Your task to perform on an android device: turn off javascript in the chrome app Image 0: 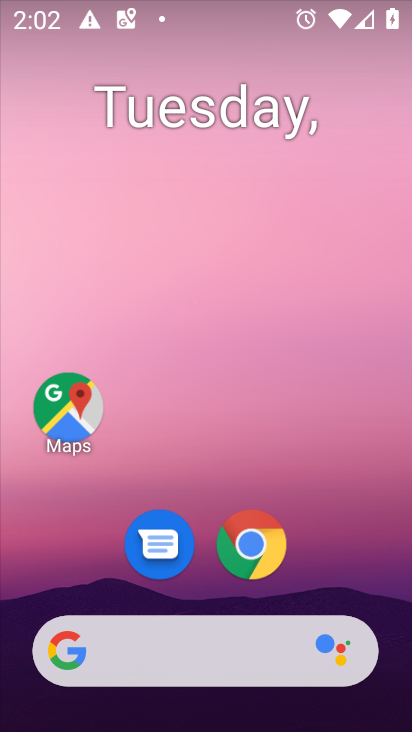
Step 0: drag from (324, 532) to (302, 9)
Your task to perform on an android device: turn off javascript in the chrome app Image 1: 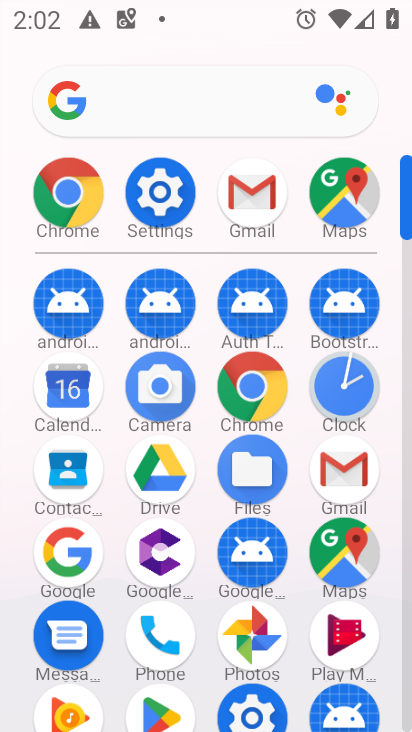
Step 1: click (246, 395)
Your task to perform on an android device: turn off javascript in the chrome app Image 2: 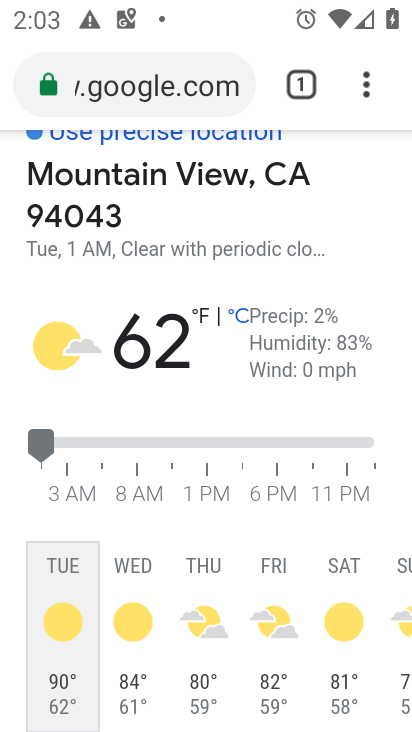
Step 2: drag from (355, 84) to (153, 593)
Your task to perform on an android device: turn off javascript in the chrome app Image 3: 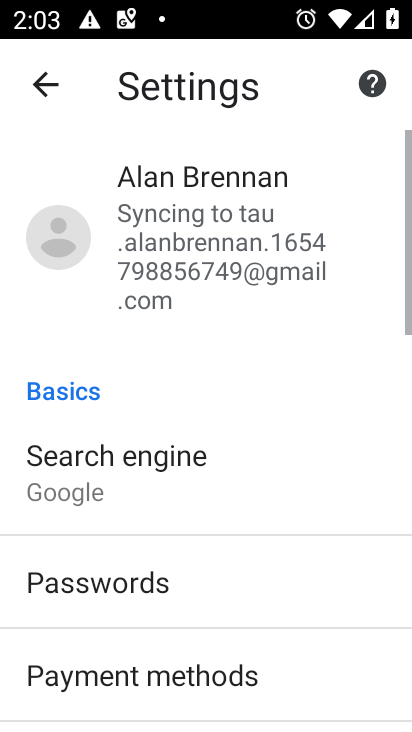
Step 3: drag from (253, 594) to (285, 63)
Your task to perform on an android device: turn off javascript in the chrome app Image 4: 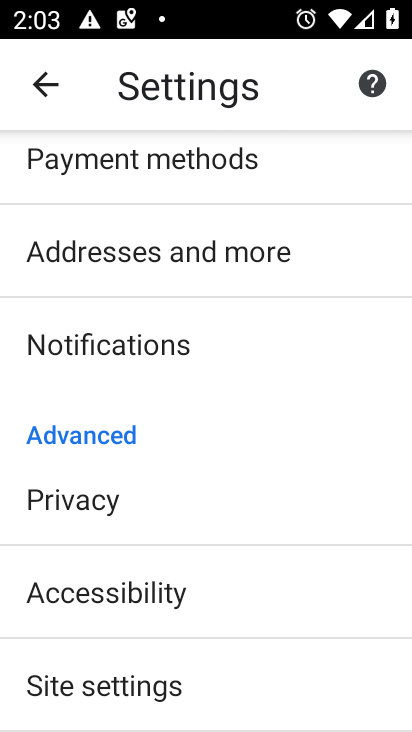
Step 4: drag from (254, 595) to (270, 202)
Your task to perform on an android device: turn off javascript in the chrome app Image 5: 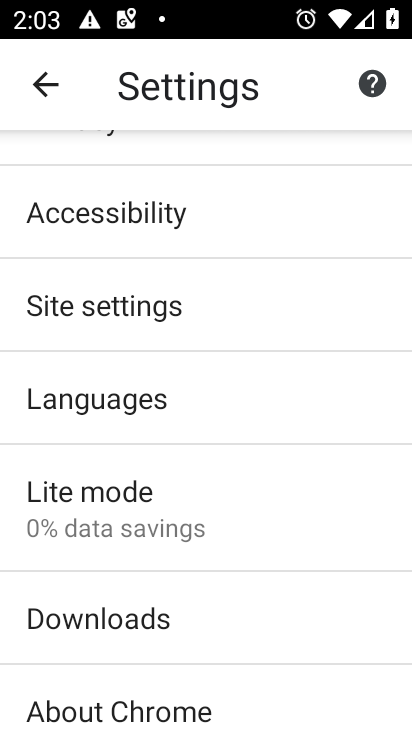
Step 5: click (124, 327)
Your task to perform on an android device: turn off javascript in the chrome app Image 6: 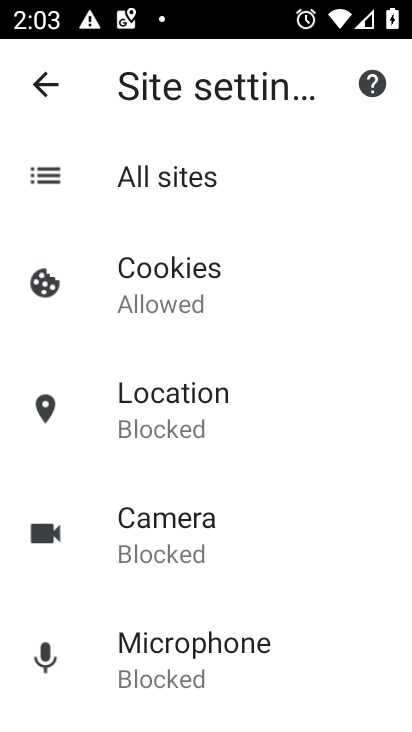
Step 6: drag from (276, 623) to (287, 186)
Your task to perform on an android device: turn off javascript in the chrome app Image 7: 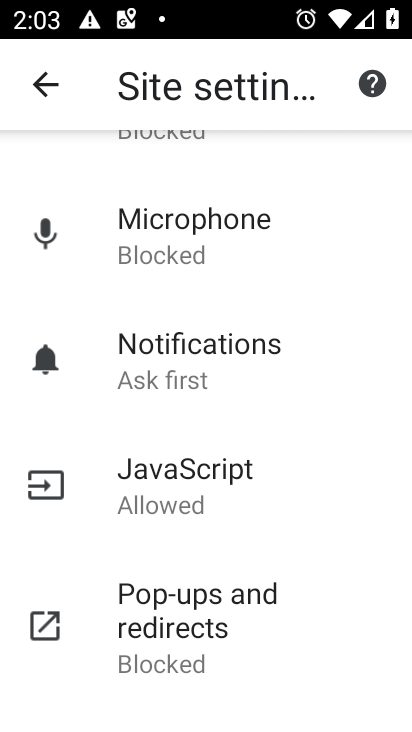
Step 7: click (178, 503)
Your task to perform on an android device: turn off javascript in the chrome app Image 8: 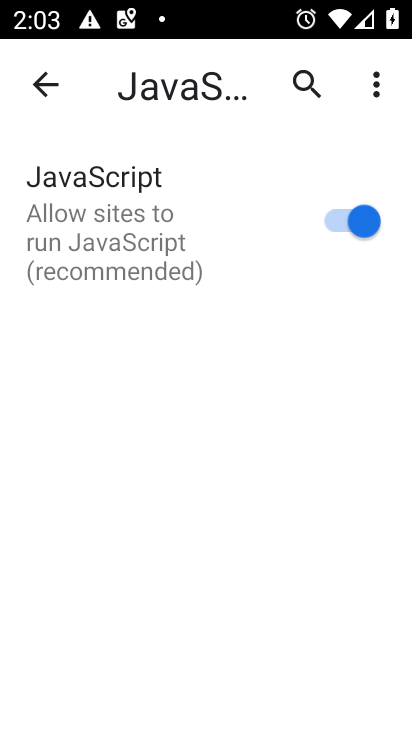
Step 8: click (344, 220)
Your task to perform on an android device: turn off javascript in the chrome app Image 9: 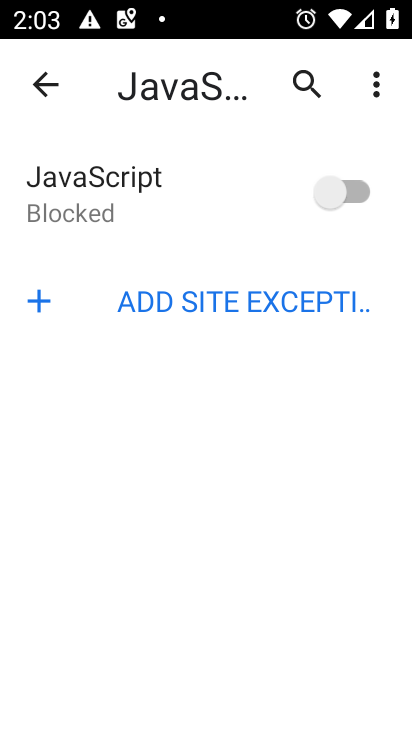
Step 9: task complete